Your task to perform on an android device: Go to privacy settings Image 0: 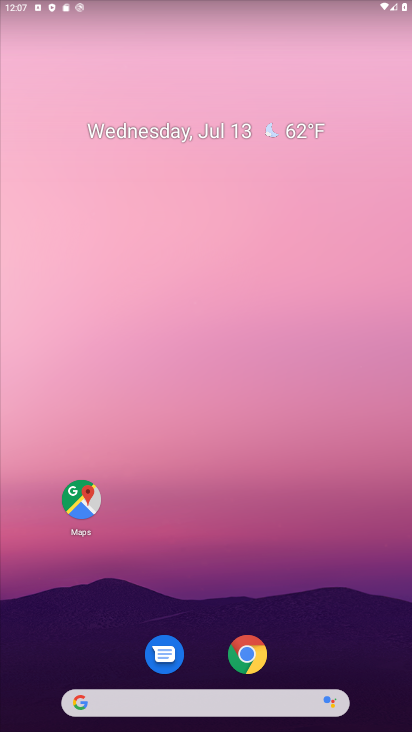
Step 0: drag from (224, 692) to (233, 141)
Your task to perform on an android device: Go to privacy settings Image 1: 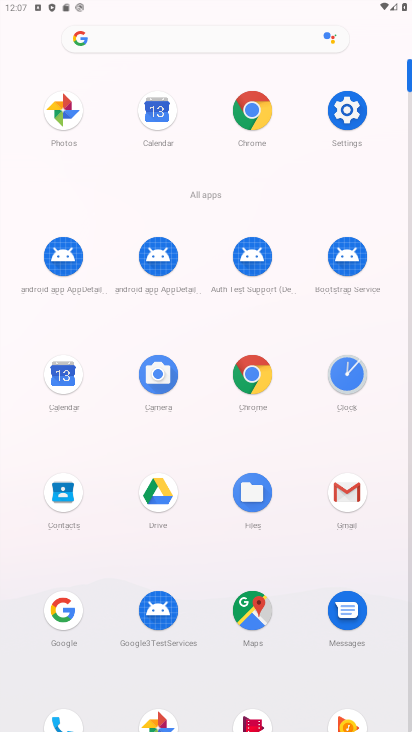
Step 1: click (349, 109)
Your task to perform on an android device: Go to privacy settings Image 2: 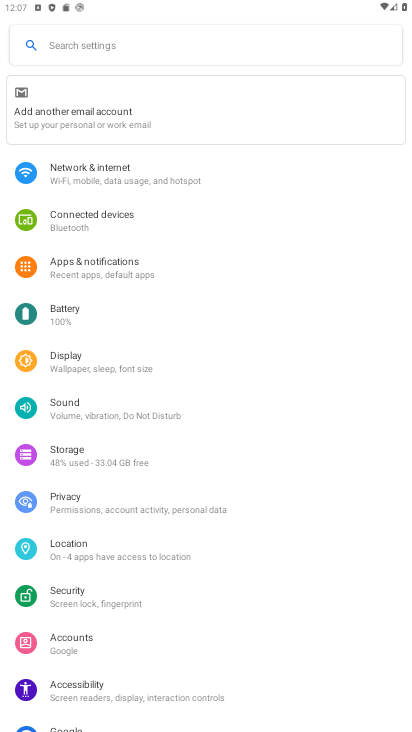
Step 2: click (82, 500)
Your task to perform on an android device: Go to privacy settings Image 3: 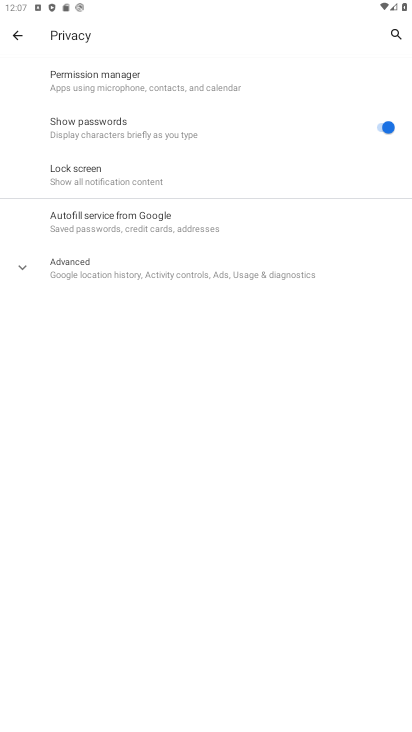
Step 3: task complete